Your task to perform on an android device: turn vacation reply on in the gmail app Image 0: 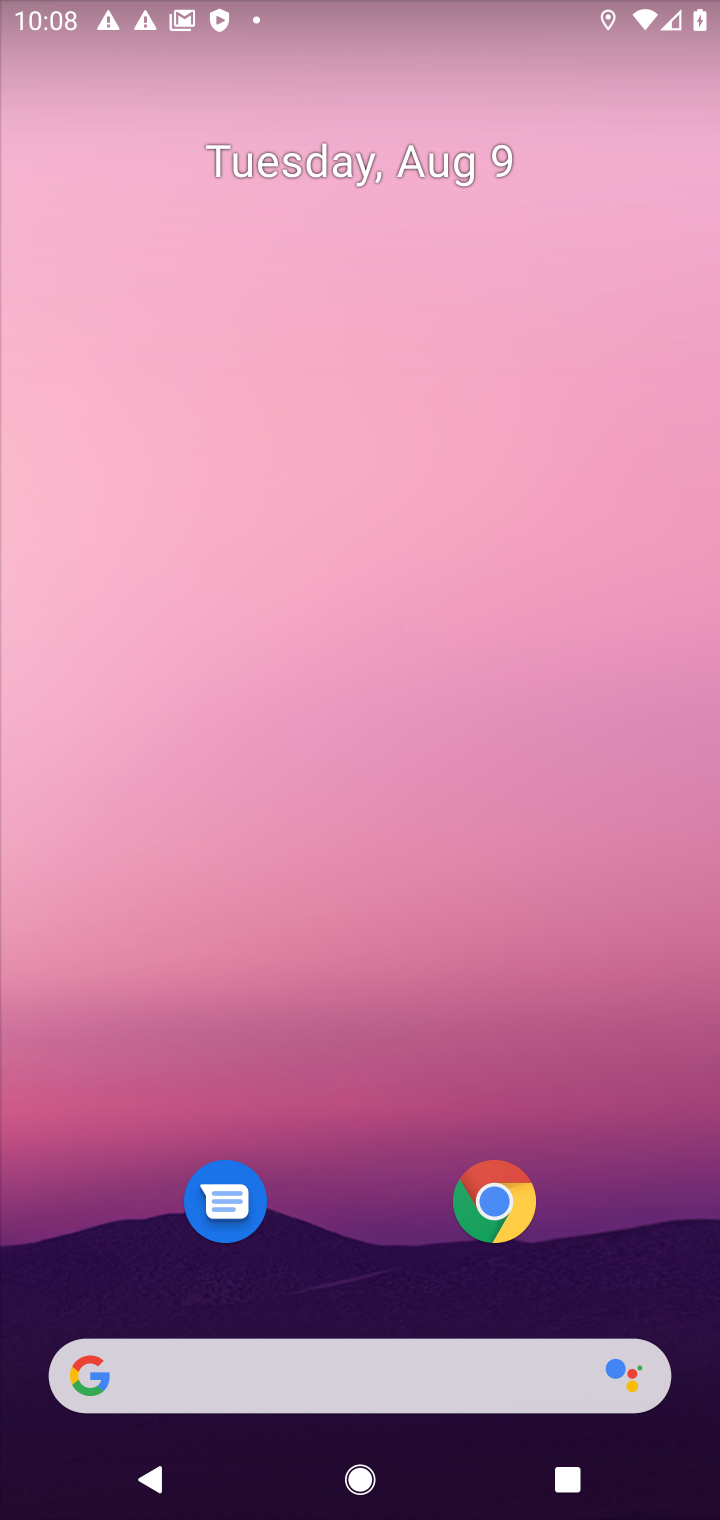
Step 0: drag from (328, 1074) to (437, 99)
Your task to perform on an android device: turn vacation reply on in the gmail app Image 1: 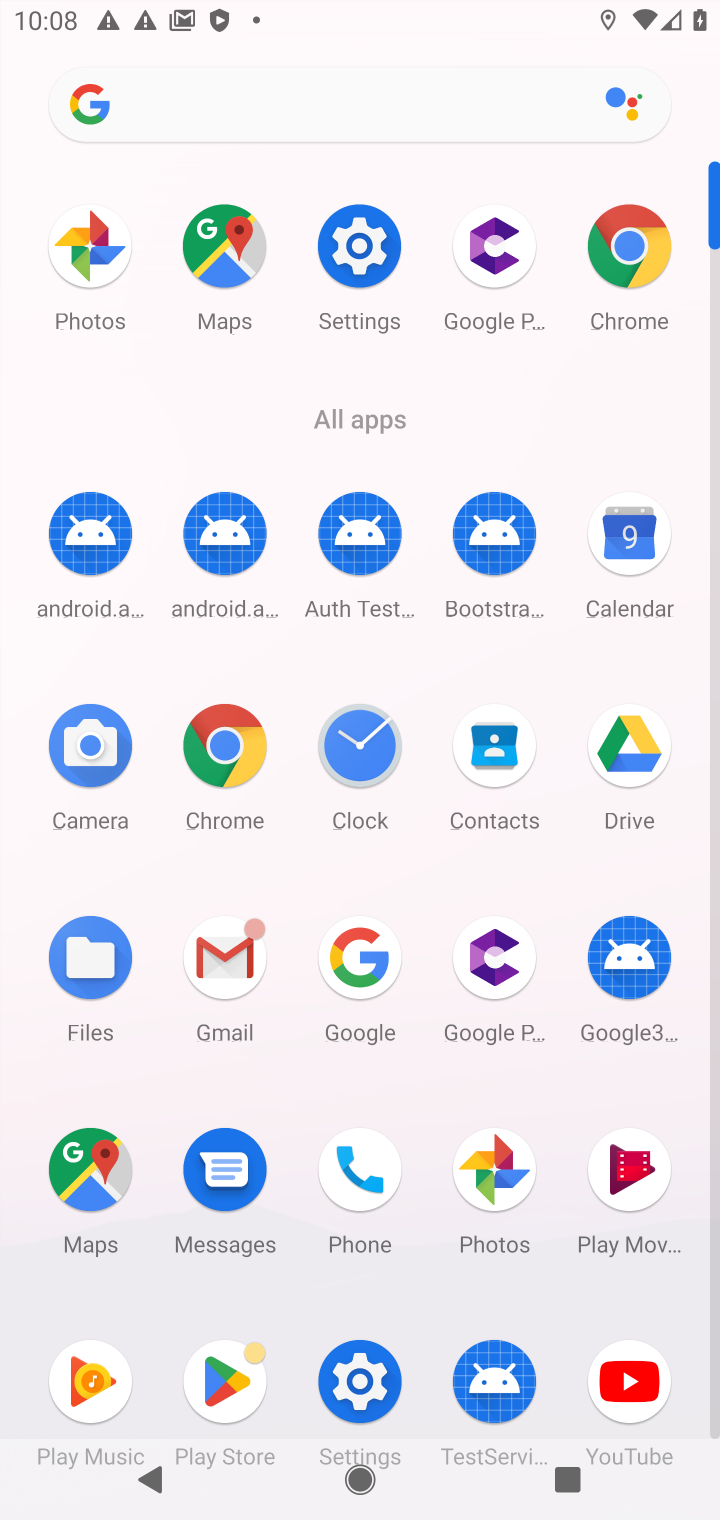
Step 1: click (247, 983)
Your task to perform on an android device: turn vacation reply on in the gmail app Image 2: 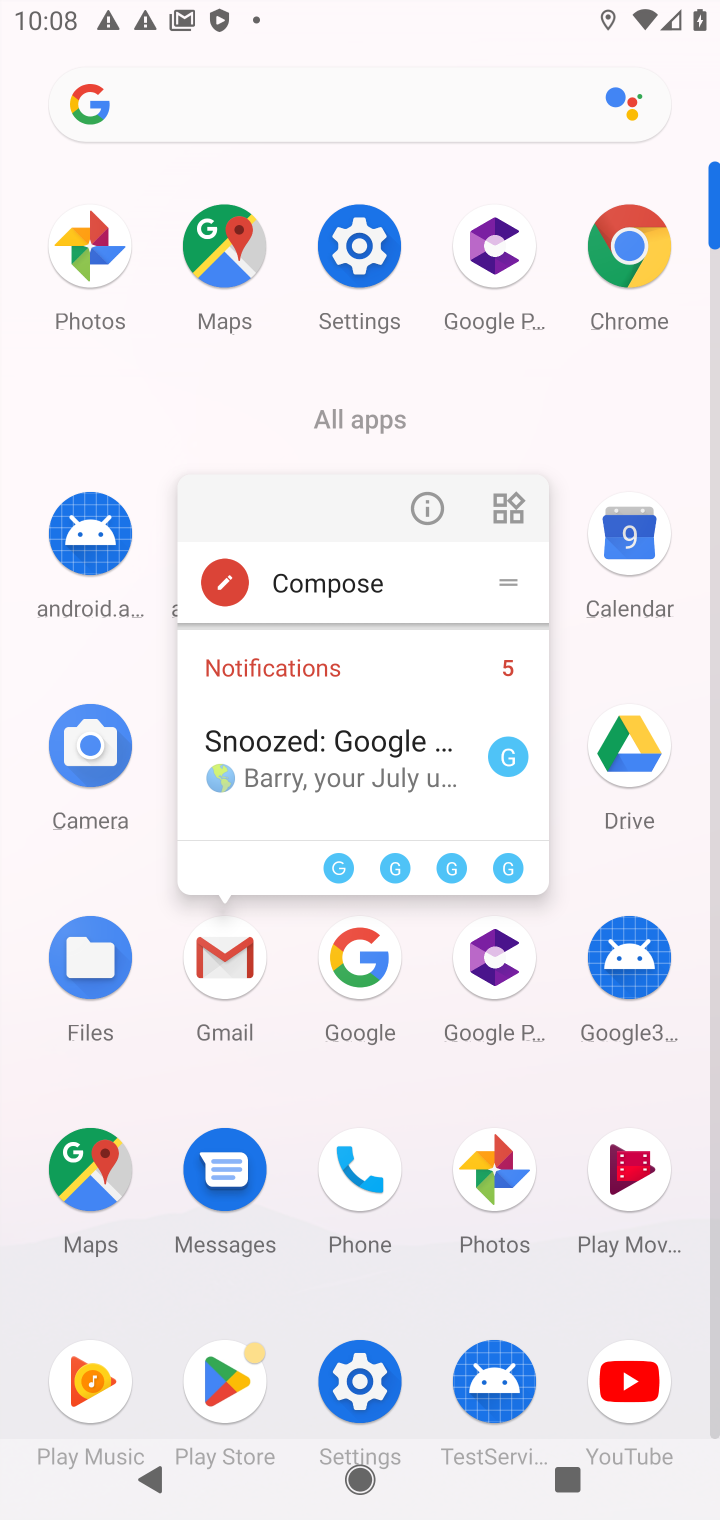
Step 2: task complete